Your task to perform on an android device: Go to settings Image 0: 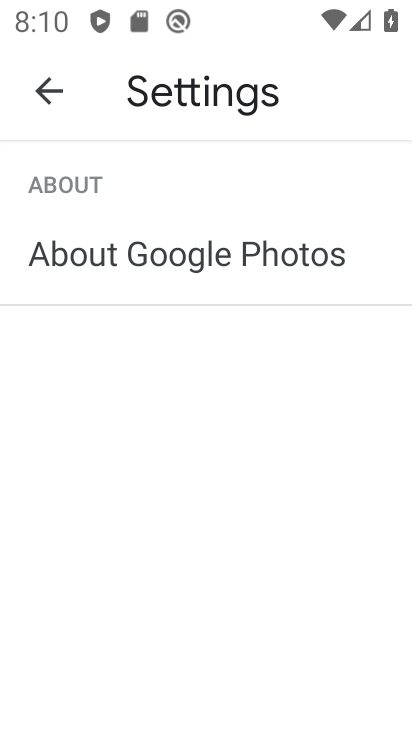
Step 0: press home button
Your task to perform on an android device: Go to settings Image 1: 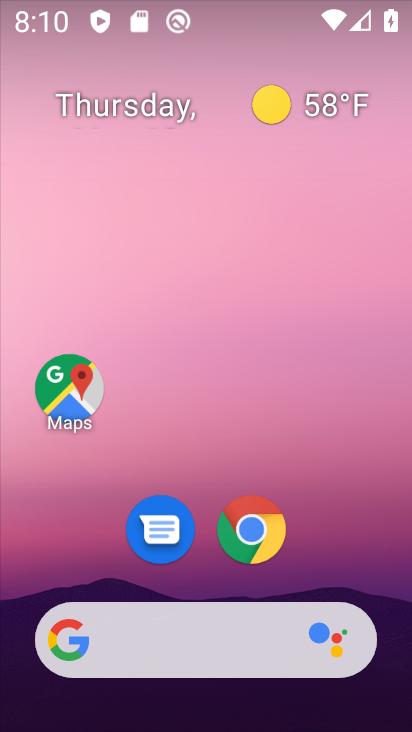
Step 1: drag from (212, 580) to (212, 63)
Your task to perform on an android device: Go to settings Image 2: 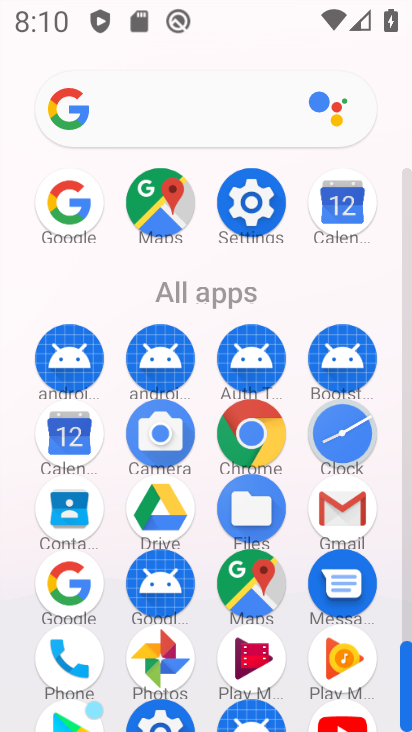
Step 2: click (255, 192)
Your task to perform on an android device: Go to settings Image 3: 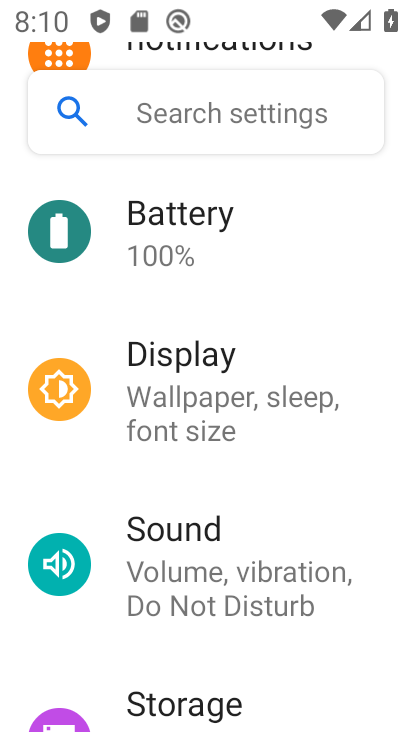
Step 3: task complete